Your task to perform on an android device: Turn off the flashlight Image 0: 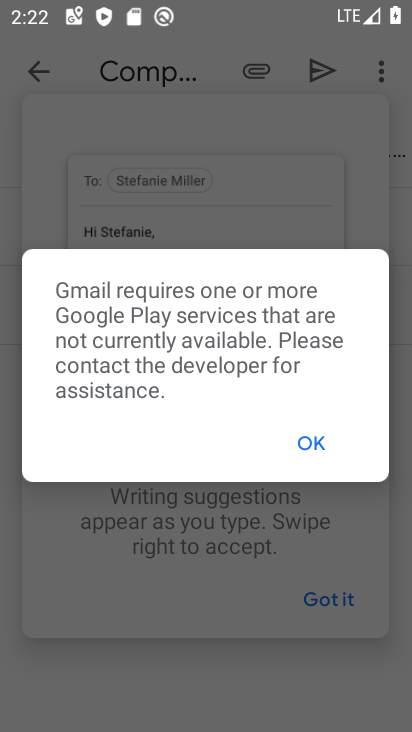
Step 0: press home button
Your task to perform on an android device: Turn off the flashlight Image 1: 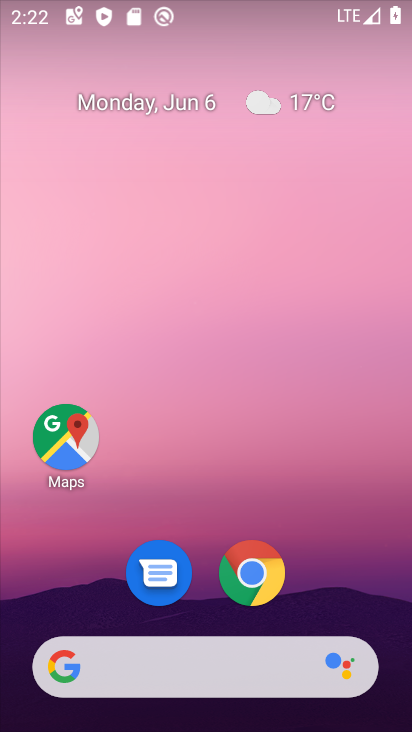
Step 1: drag from (229, 3) to (269, 439)
Your task to perform on an android device: Turn off the flashlight Image 2: 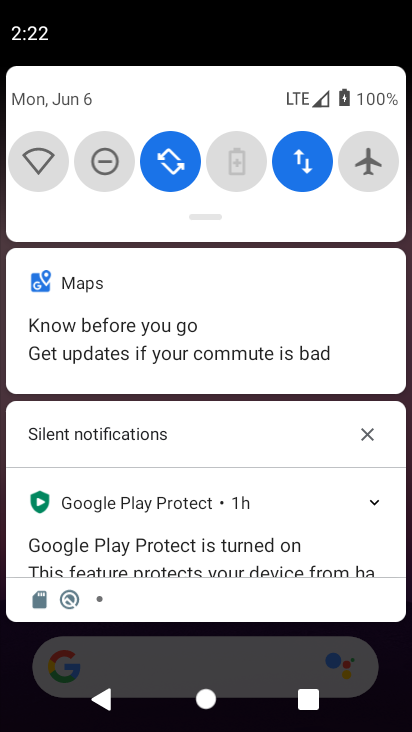
Step 2: drag from (196, 90) to (195, 362)
Your task to perform on an android device: Turn off the flashlight Image 3: 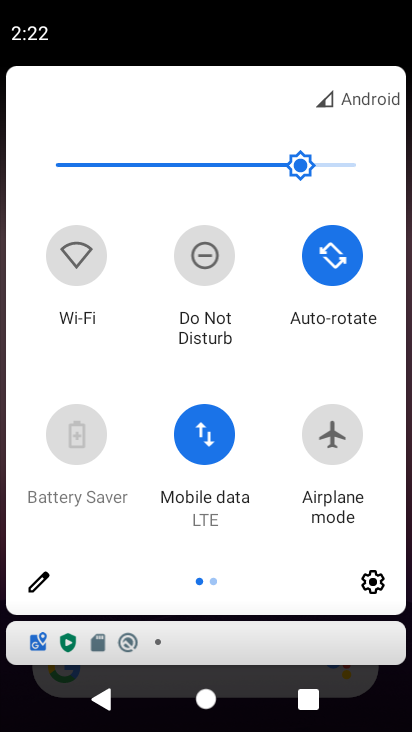
Step 3: click (37, 579)
Your task to perform on an android device: Turn off the flashlight Image 4: 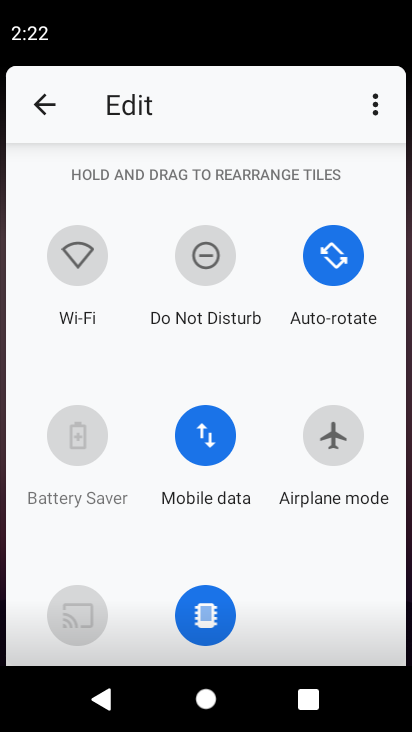
Step 4: task complete